Your task to perform on an android device: Open calendar and show me the first week of next month Image 0: 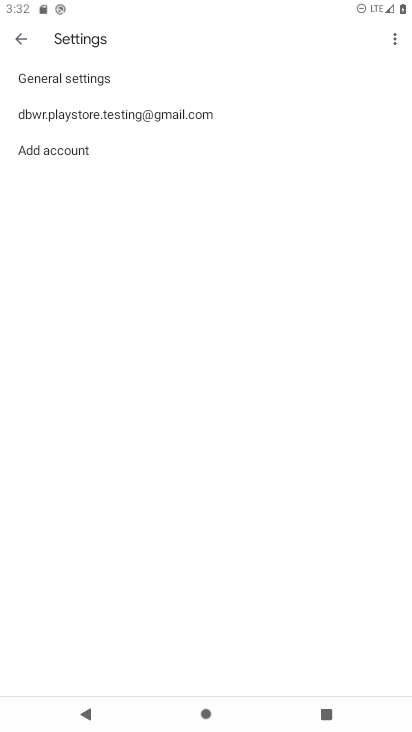
Step 0: press home button
Your task to perform on an android device: Open calendar and show me the first week of next month Image 1: 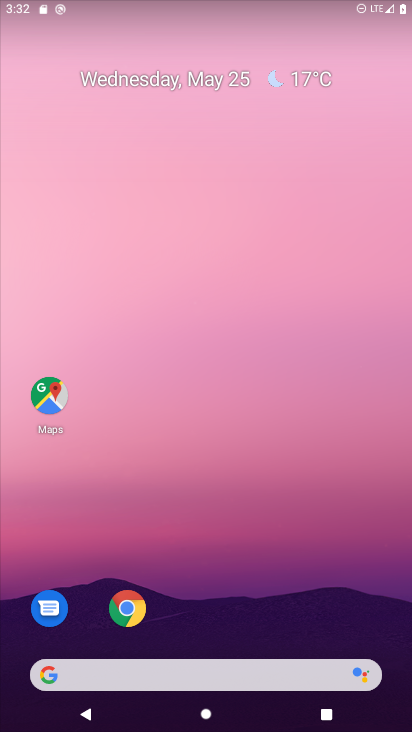
Step 1: drag from (389, 619) to (323, 120)
Your task to perform on an android device: Open calendar and show me the first week of next month Image 2: 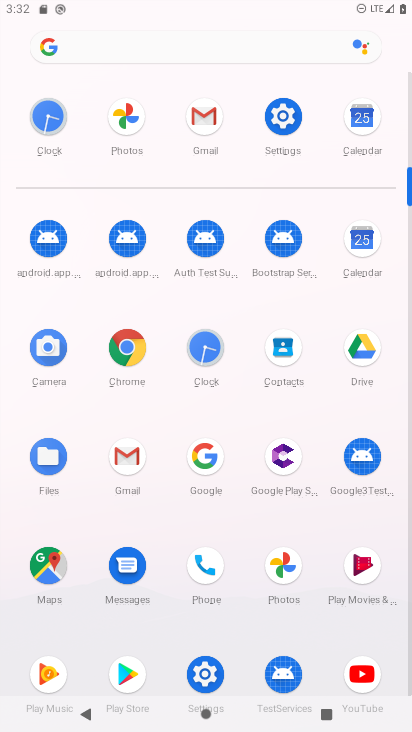
Step 2: click (411, 679)
Your task to perform on an android device: Open calendar and show me the first week of next month Image 3: 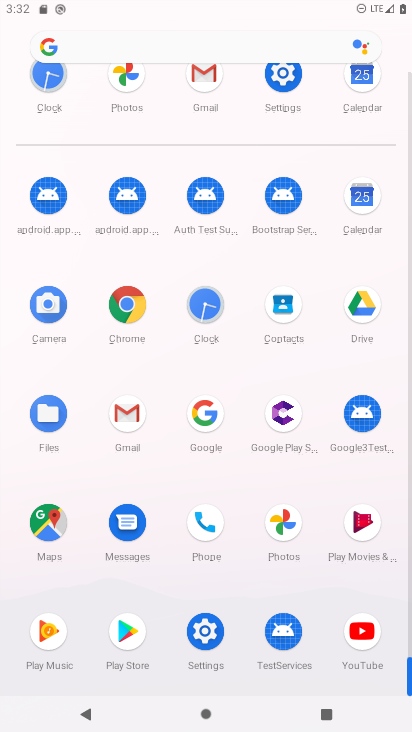
Step 3: click (359, 200)
Your task to perform on an android device: Open calendar and show me the first week of next month Image 4: 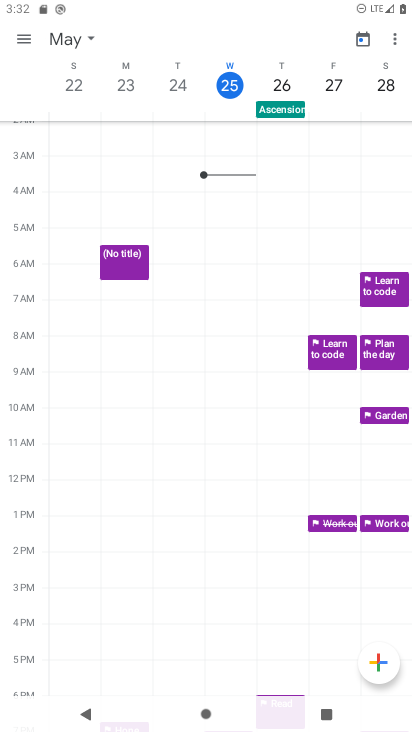
Step 4: click (84, 30)
Your task to perform on an android device: Open calendar and show me the first week of next month Image 5: 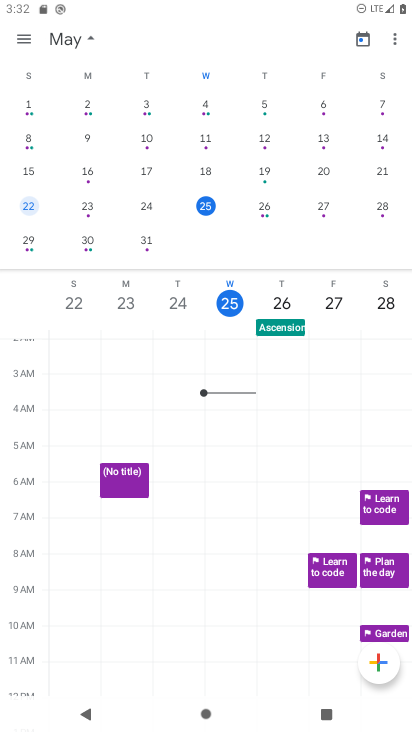
Step 5: drag from (376, 174) to (20, 170)
Your task to perform on an android device: Open calendar and show me the first week of next month Image 6: 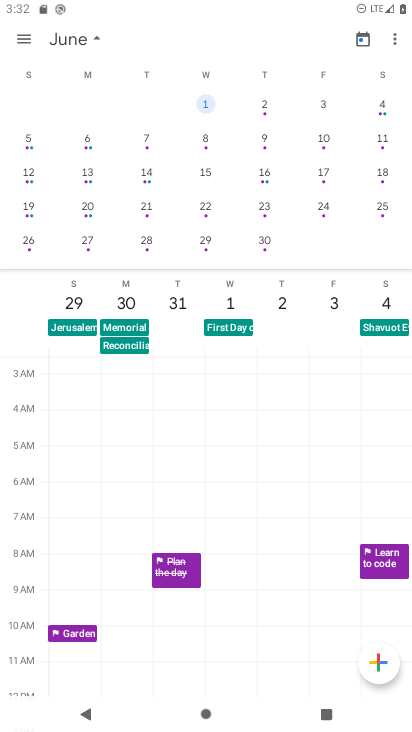
Step 6: click (29, 143)
Your task to perform on an android device: Open calendar and show me the first week of next month Image 7: 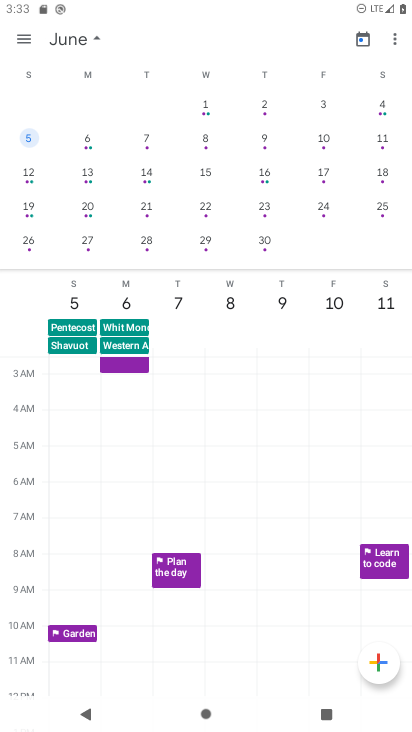
Step 7: task complete